Your task to perform on an android device: Go to Reddit.com Image 0: 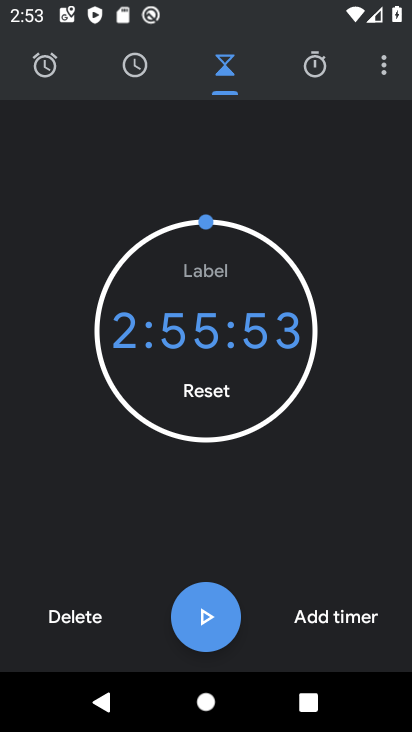
Step 0: press home button
Your task to perform on an android device: Go to Reddit.com Image 1: 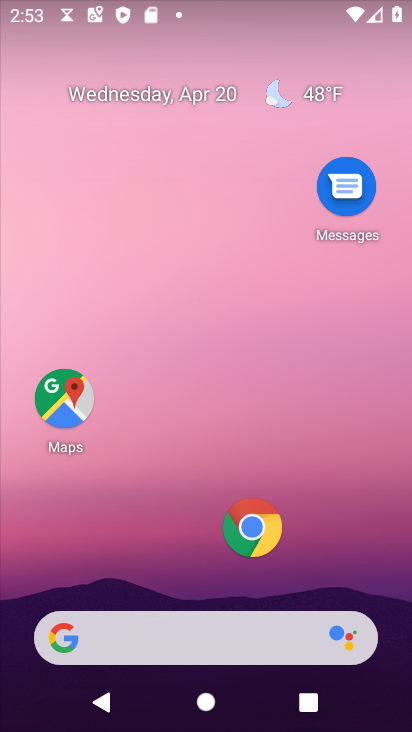
Step 1: drag from (181, 632) to (319, 112)
Your task to perform on an android device: Go to Reddit.com Image 2: 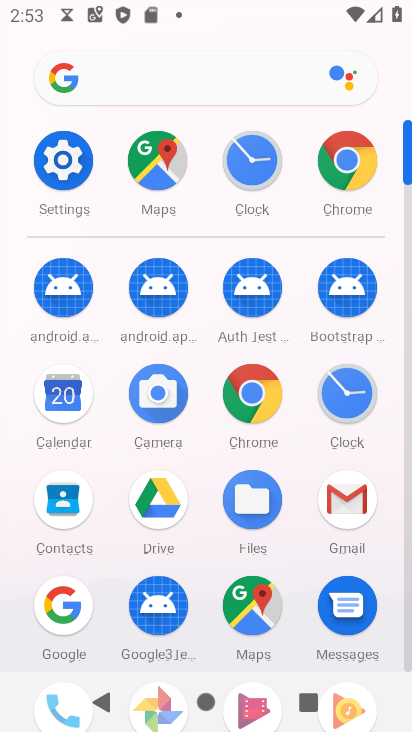
Step 2: click (357, 173)
Your task to perform on an android device: Go to Reddit.com Image 3: 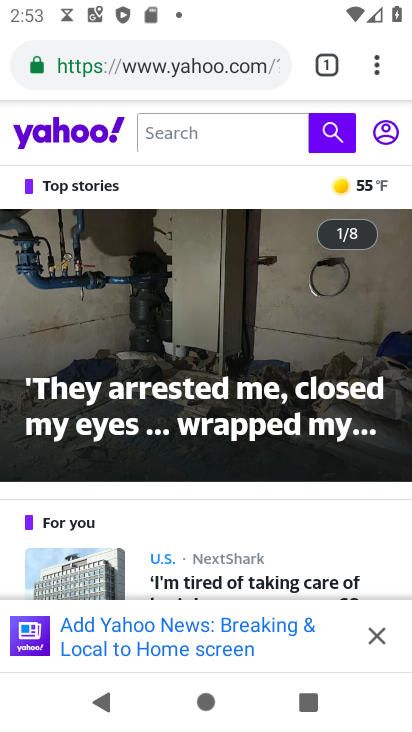
Step 3: click (370, 72)
Your task to perform on an android device: Go to Reddit.com Image 4: 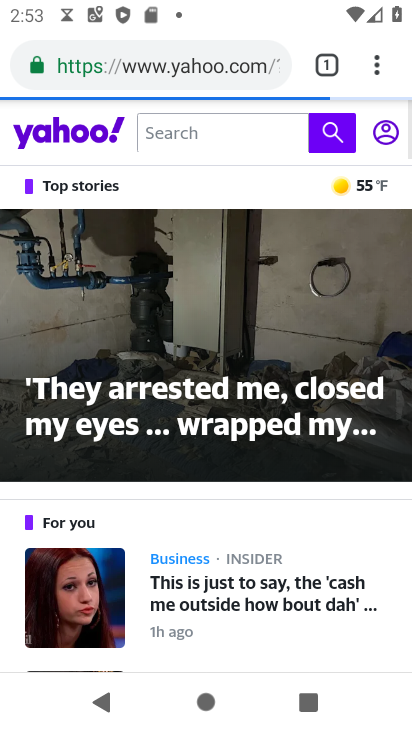
Step 4: click (370, 72)
Your task to perform on an android device: Go to Reddit.com Image 5: 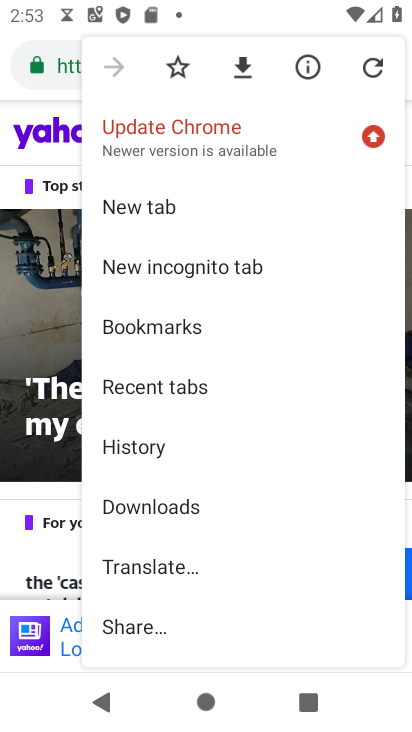
Step 5: click (154, 204)
Your task to perform on an android device: Go to Reddit.com Image 6: 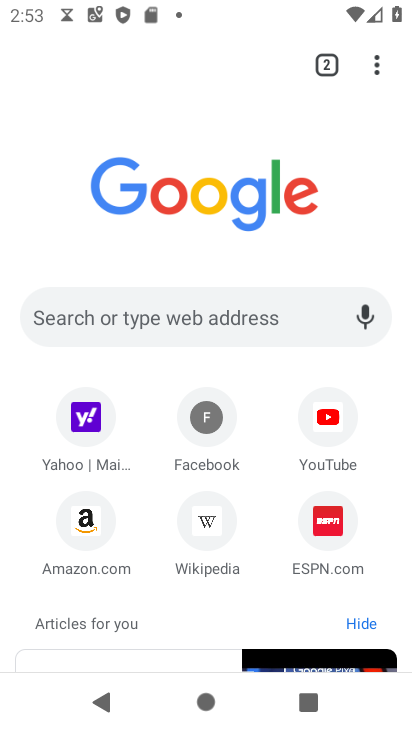
Step 6: click (152, 299)
Your task to perform on an android device: Go to Reddit.com Image 7: 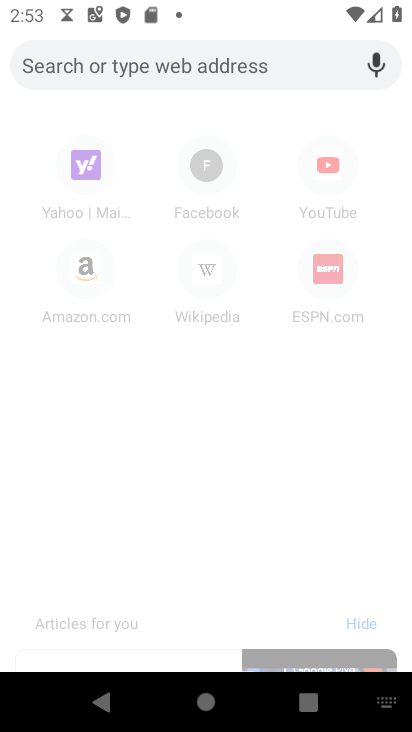
Step 7: type "reddit.com"
Your task to perform on an android device: Go to Reddit.com Image 8: 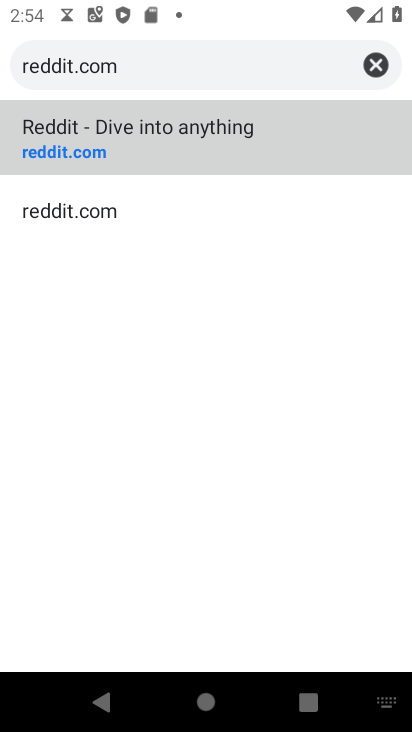
Step 8: click (98, 201)
Your task to perform on an android device: Go to Reddit.com Image 9: 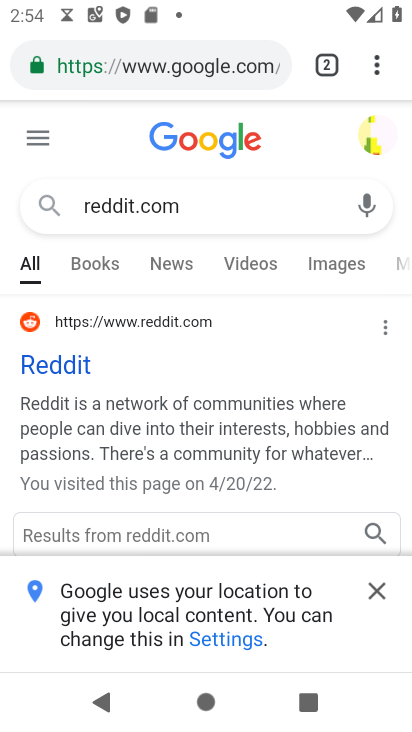
Step 9: click (380, 591)
Your task to perform on an android device: Go to Reddit.com Image 10: 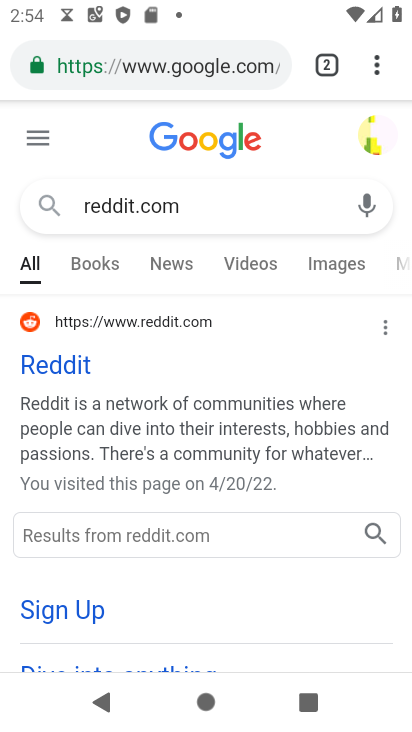
Step 10: click (75, 361)
Your task to perform on an android device: Go to Reddit.com Image 11: 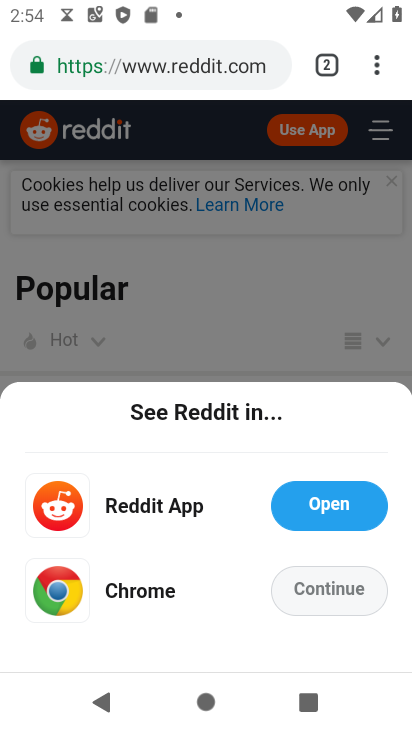
Step 11: click (125, 505)
Your task to perform on an android device: Go to Reddit.com Image 12: 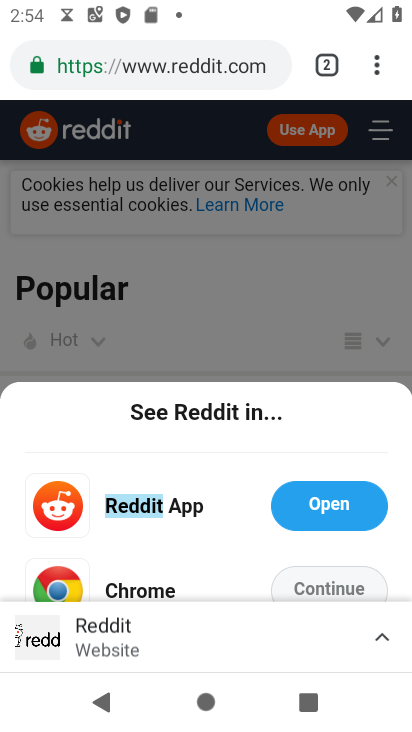
Step 12: click (314, 504)
Your task to perform on an android device: Go to Reddit.com Image 13: 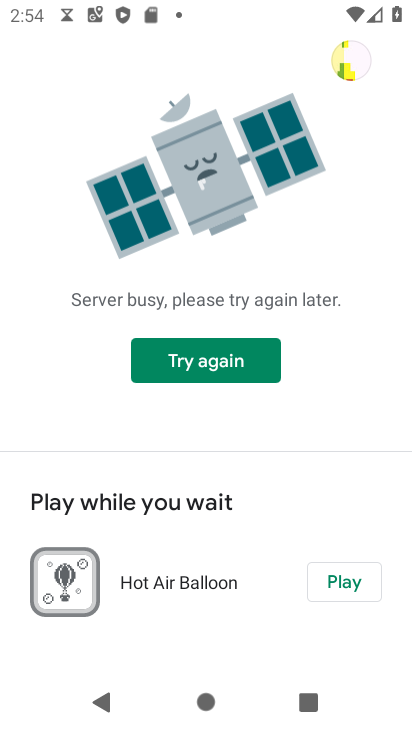
Step 13: task complete